Your task to perform on an android device: turn on sleep mode Image 0: 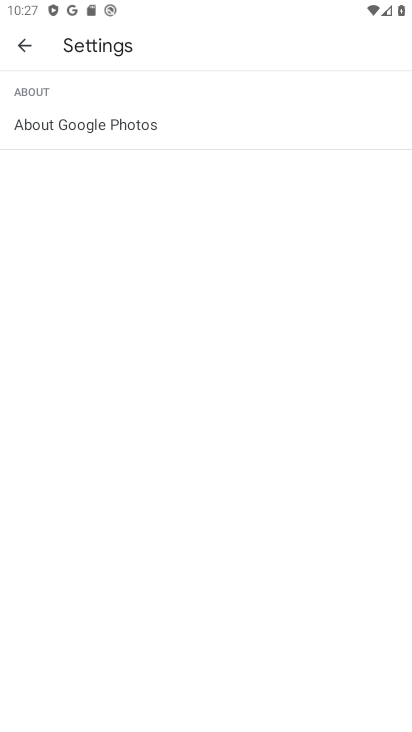
Step 0: task complete